Your task to perform on an android device: turn off javascript in the chrome app Image 0: 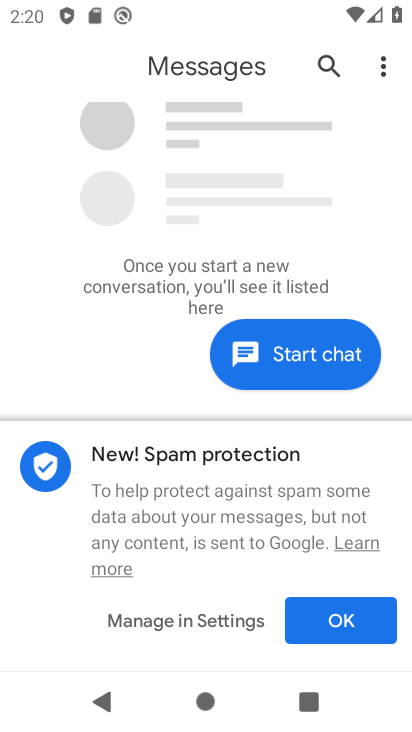
Step 0: press home button
Your task to perform on an android device: turn off javascript in the chrome app Image 1: 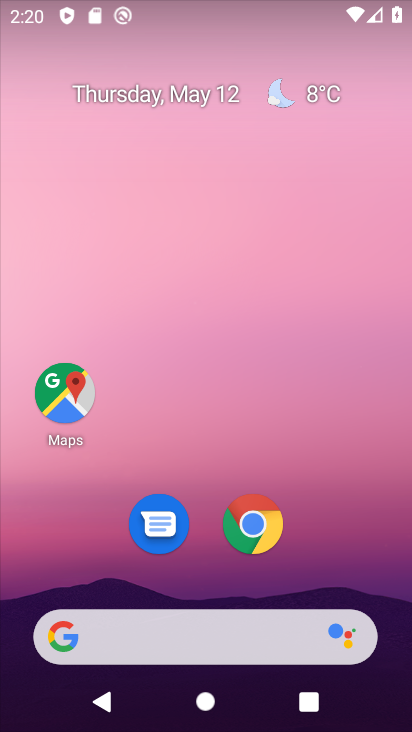
Step 1: click (247, 514)
Your task to perform on an android device: turn off javascript in the chrome app Image 2: 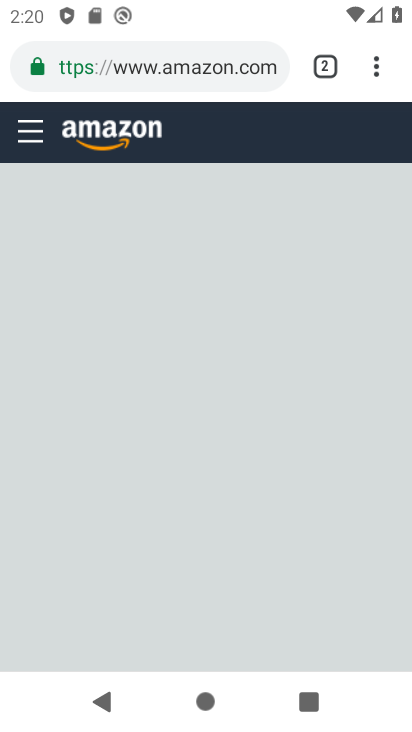
Step 2: click (376, 66)
Your task to perform on an android device: turn off javascript in the chrome app Image 3: 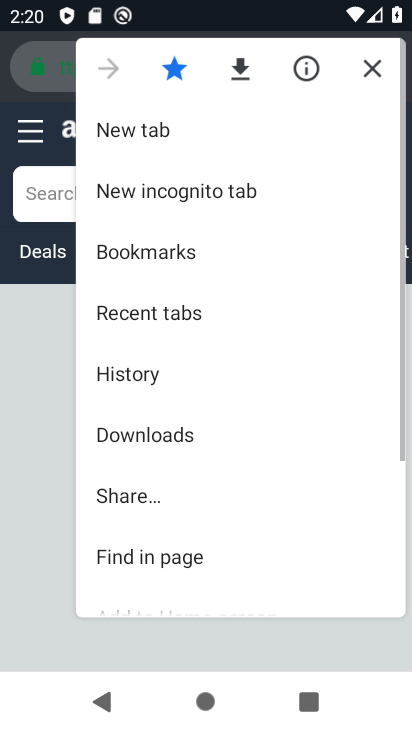
Step 3: click (376, 68)
Your task to perform on an android device: turn off javascript in the chrome app Image 4: 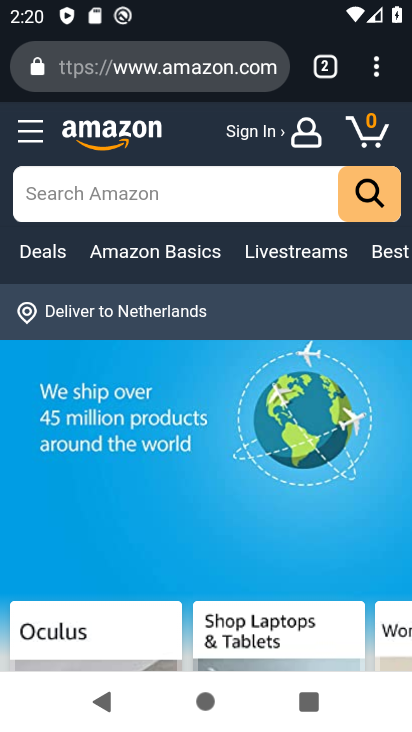
Step 4: click (378, 70)
Your task to perform on an android device: turn off javascript in the chrome app Image 5: 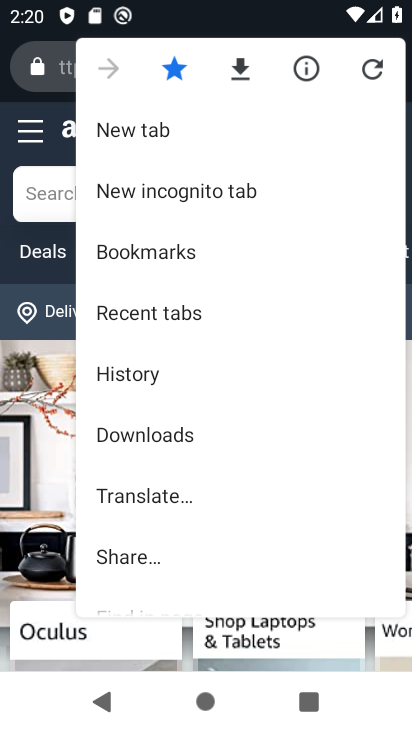
Step 5: drag from (245, 458) to (276, 131)
Your task to perform on an android device: turn off javascript in the chrome app Image 6: 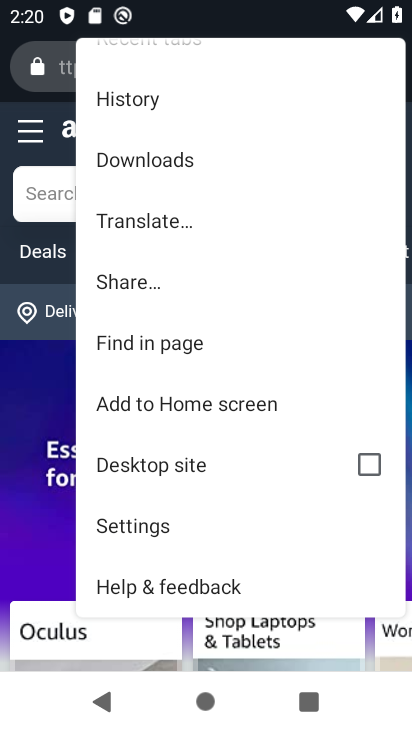
Step 6: click (181, 513)
Your task to perform on an android device: turn off javascript in the chrome app Image 7: 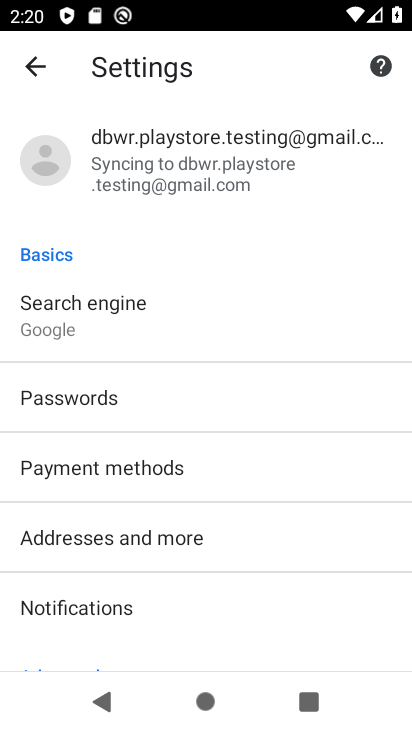
Step 7: drag from (241, 509) to (245, 200)
Your task to perform on an android device: turn off javascript in the chrome app Image 8: 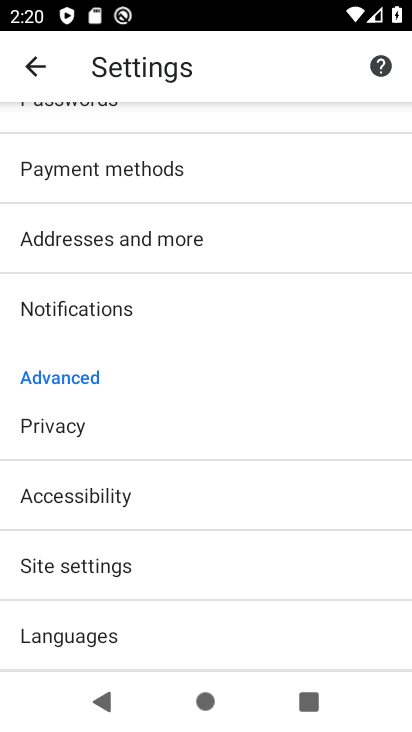
Step 8: click (164, 572)
Your task to perform on an android device: turn off javascript in the chrome app Image 9: 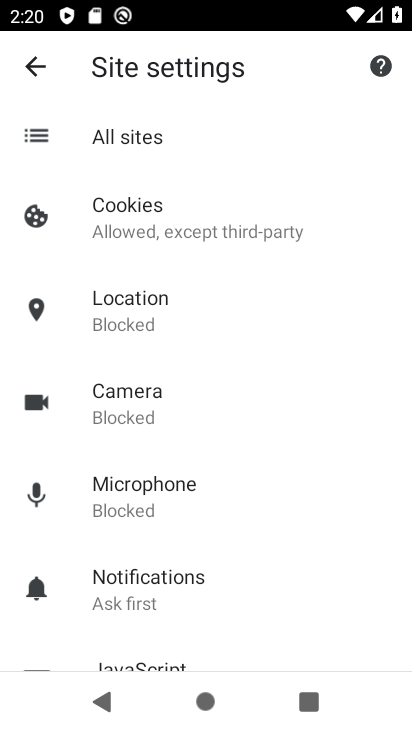
Step 9: drag from (200, 542) to (201, 293)
Your task to perform on an android device: turn off javascript in the chrome app Image 10: 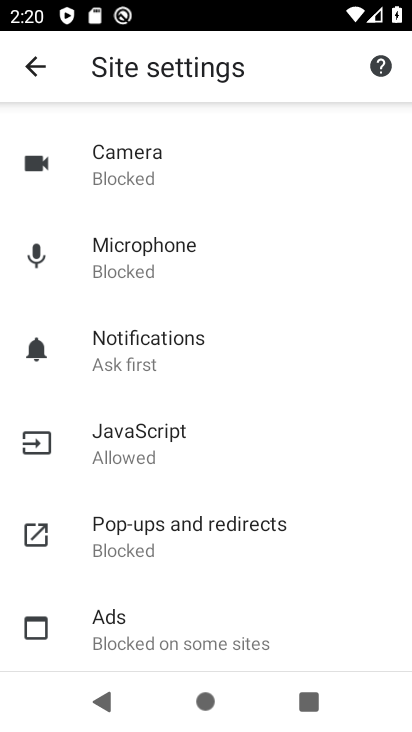
Step 10: click (180, 451)
Your task to perform on an android device: turn off javascript in the chrome app Image 11: 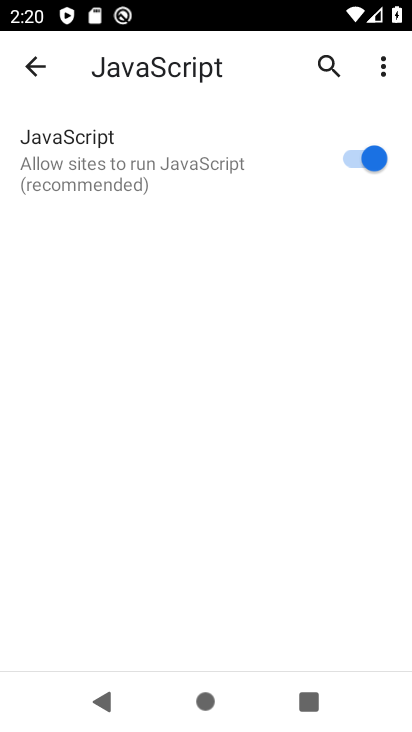
Step 11: click (354, 154)
Your task to perform on an android device: turn off javascript in the chrome app Image 12: 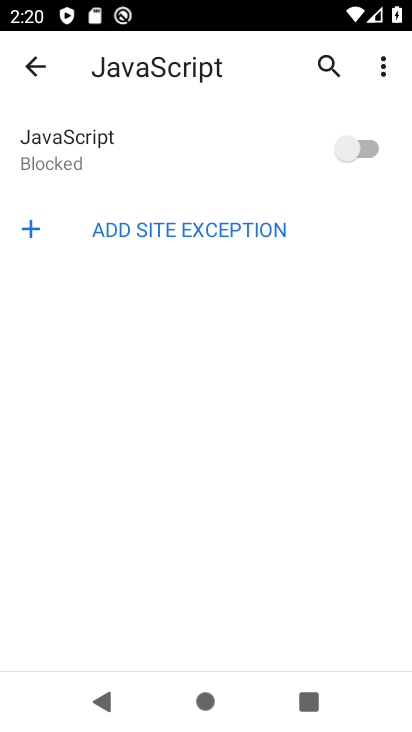
Step 12: task complete